Your task to perform on an android device: search for starred emails in the gmail app Image 0: 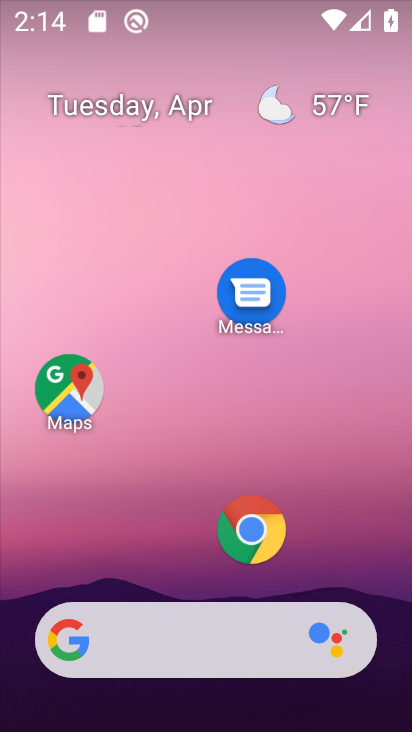
Step 0: drag from (119, 525) to (184, 122)
Your task to perform on an android device: search for starred emails in the gmail app Image 1: 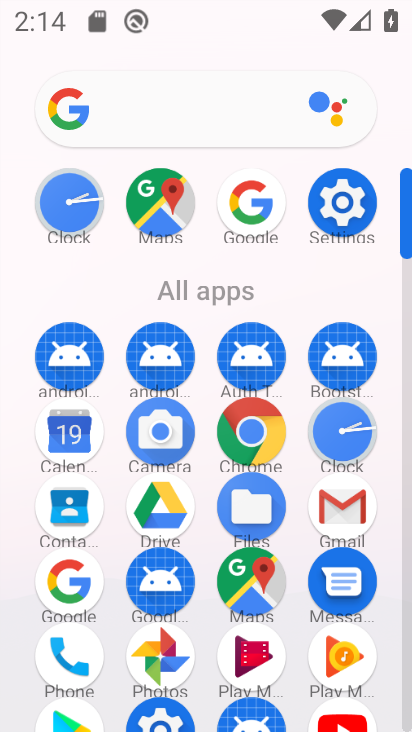
Step 1: click (337, 502)
Your task to perform on an android device: search for starred emails in the gmail app Image 2: 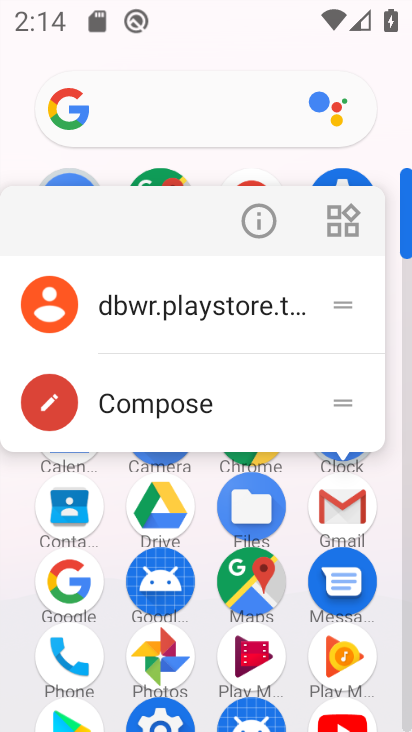
Step 2: click (352, 483)
Your task to perform on an android device: search for starred emails in the gmail app Image 3: 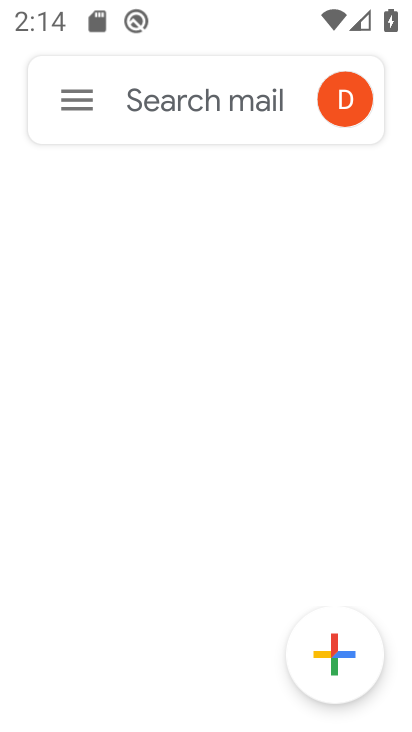
Step 3: click (78, 91)
Your task to perform on an android device: search for starred emails in the gmail app Image 4: 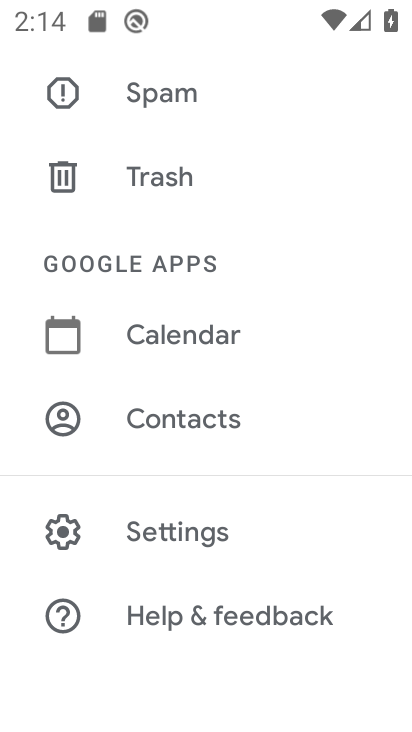
Step 4: drag from (206, 262) to (196, 613)
Your task to perform on an android device: search for starred emails in the gmail app Image 5: 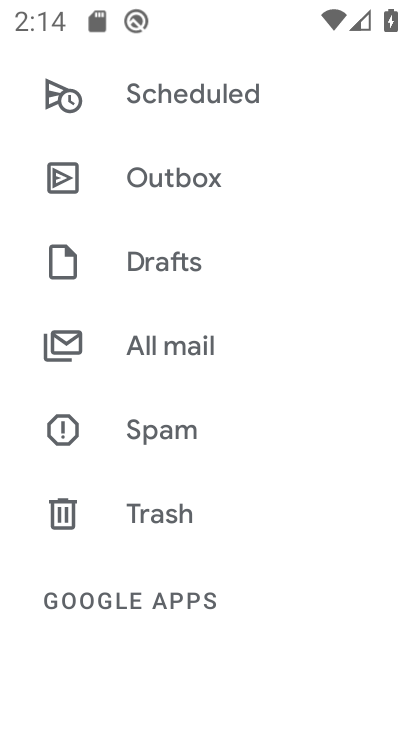
Step 5: drag from (165, 155) to (199, 518)
Your task to perform on an android device: search for starred emails in the gmail app Image 6: 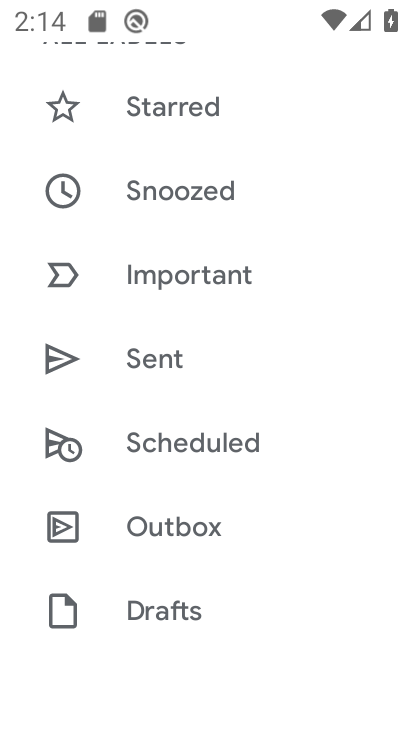
Step 6: click (193, 113)
Your task to perform on an android device: search for starred emails in the gmail app Image 7: 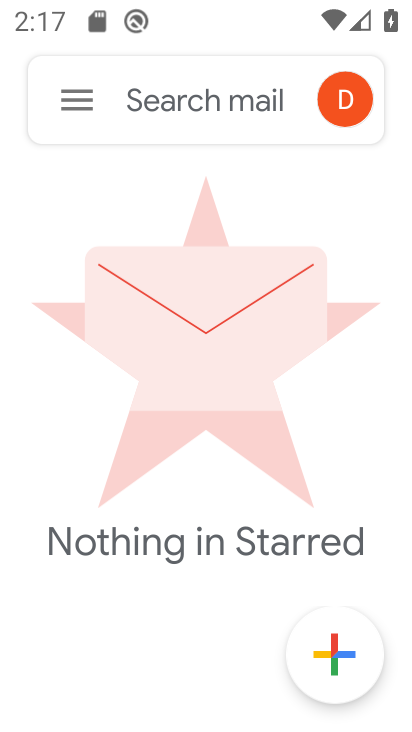
Step 7: task complete